Your task to perform on an android device: Open Google Chrome Image 0: 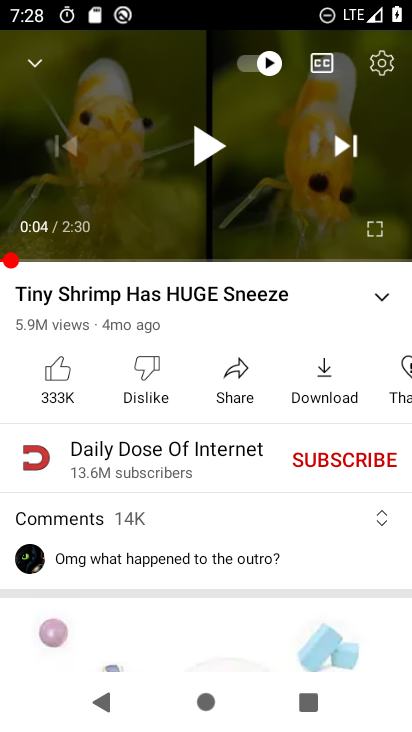
Step 0: press home button
Your task to perform on an android device: Open Google Chrome Image 1: 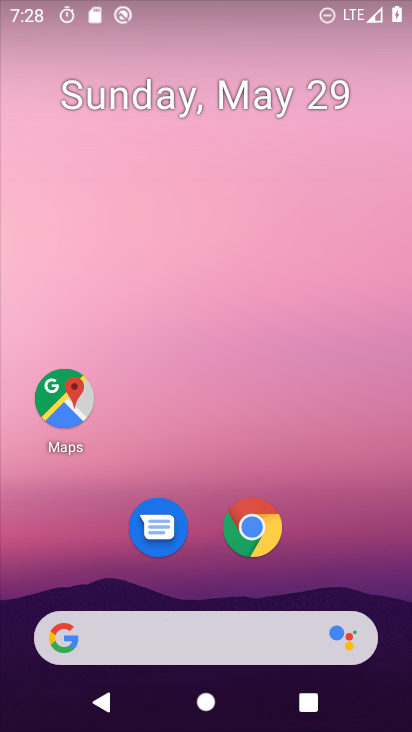
Step 1: drag from (399, 627) to (266, 37)
Your task to perform on an android device: Open Google Chrome Image 2: 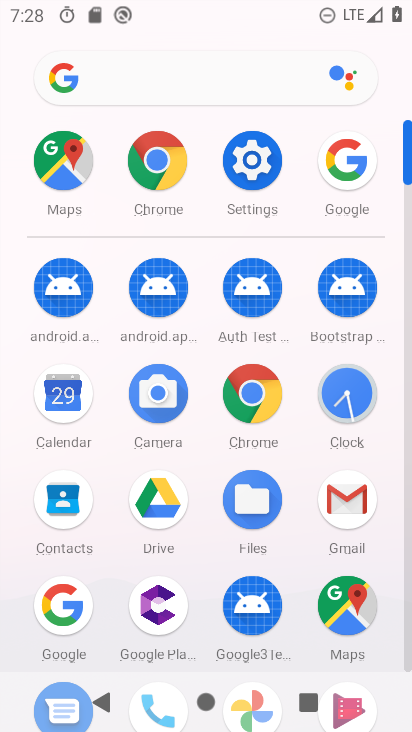
Step 2: click (137, 164)
Your task to perform on an android device: Open Google Chrome Image 3: 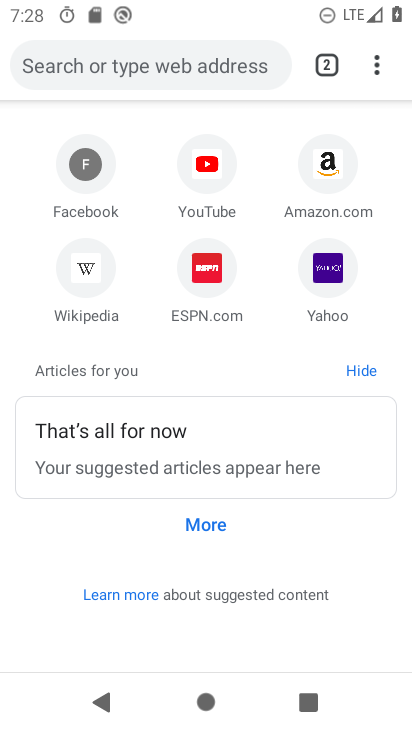
Step 3: task complete